Your task to perform on an android device: Open Google Chrome and open the bookmarks view Image 0: 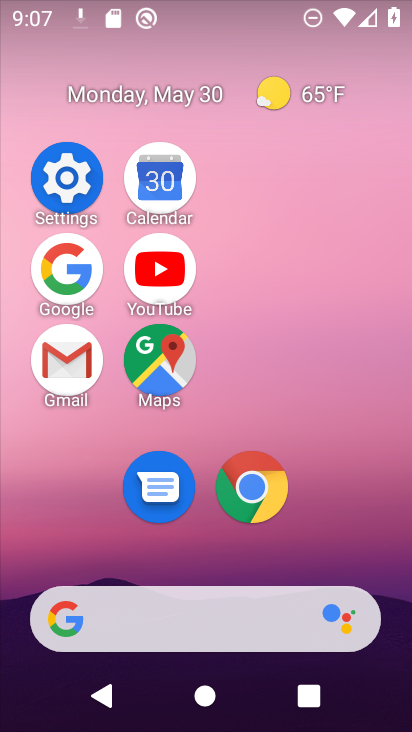
Step 0: click (272, 496)
Your task to perform on an android device: Open Google Chrome and open the bookmarks view Image 1: 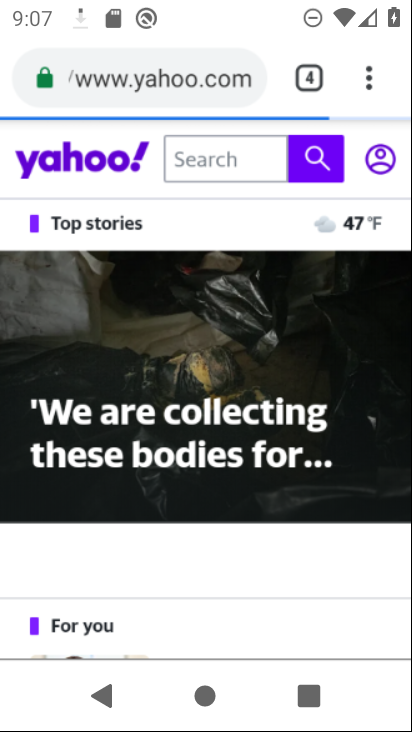
Step 1: click (375, 74)
Your task to perform on an android device: Open Google Chrome and open the bookmarks view Image 2: 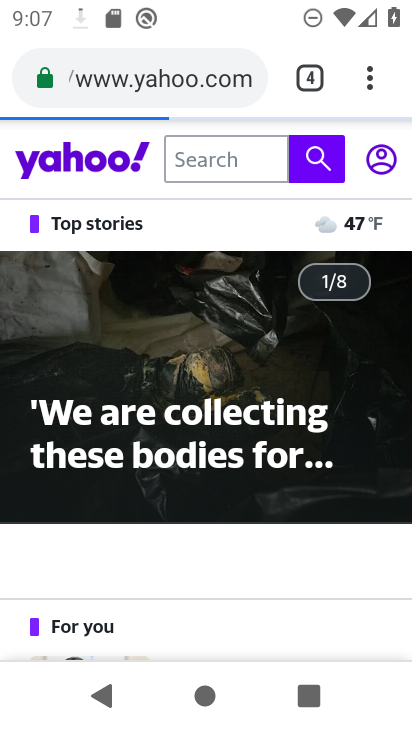
Step 2: click (388, 85)
Your task to perform on an android device: Open Google Chrome and open the bookmarks view Image 3: 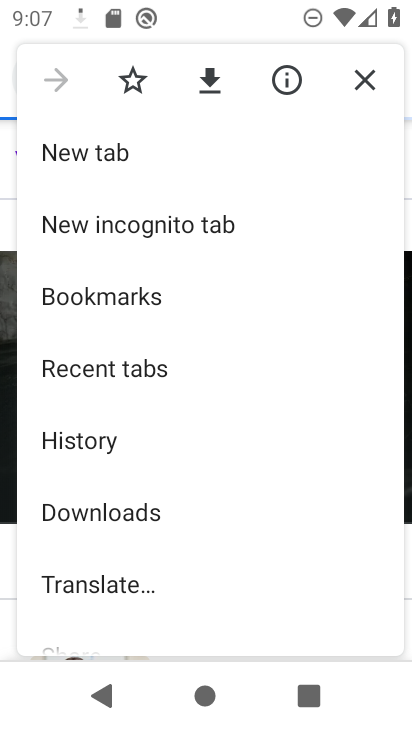
Step 3: drag from (210, 460) to (248, 199)
Your task to perform on an android device: Open Google Chrome and open the bookmarks view Image 4: 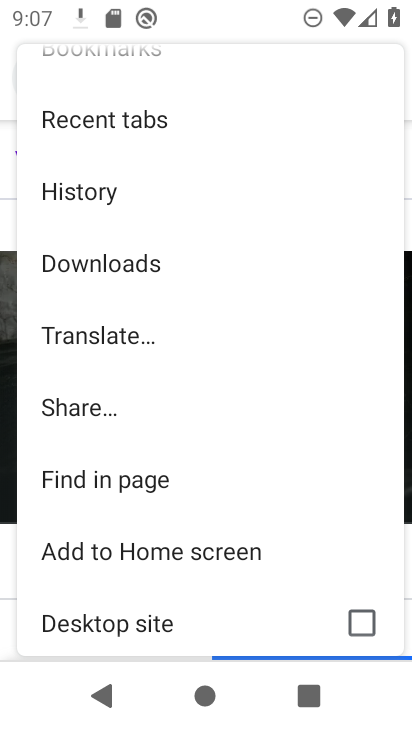
Step 4: drag from (248, 154) to (244, 638)
Your task to perform on an android device: Open Google Chrome and open the bookmarks view Image 5: 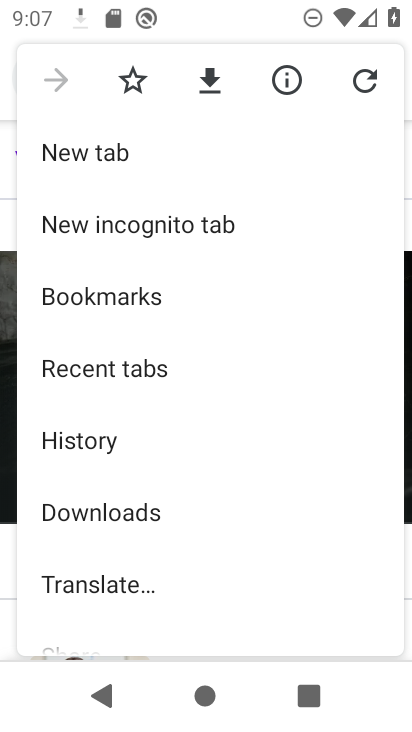
Step 5: click (146, 307)
Your task to perform on an android device: Open Google Chrome and open the bookmarks view Image 6: 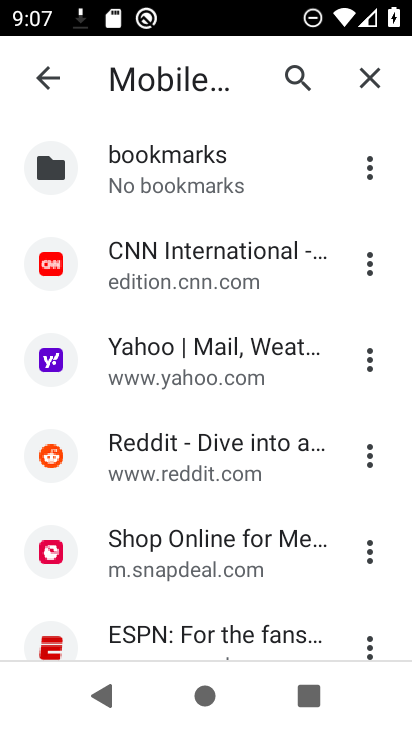
Step 6: task complete